Your task to perform on an android device: Check the news Image 0: 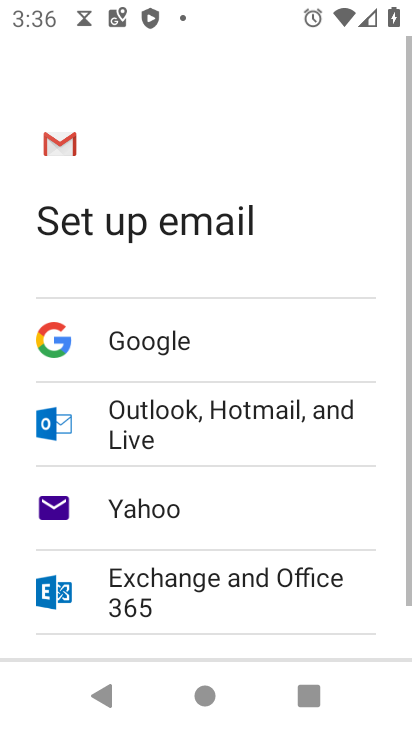
Step 0: press home button
Your task to perform on an android device: Check the news Image 1: 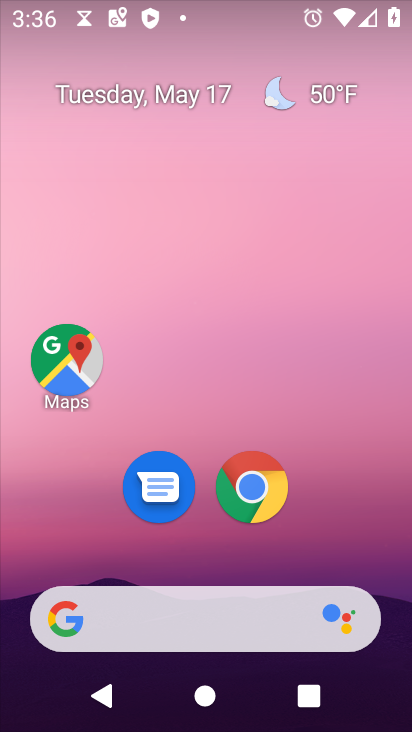
Step 1: task complete